Your task to perform on an android device: show emergency info Image 0: 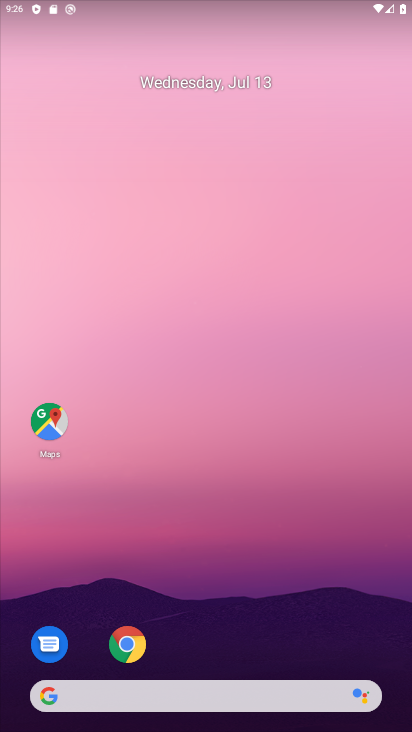
Step 0: drag from (282, 667) to (321, 202)
Your task to perform on an android device: show emergency info Image 1: 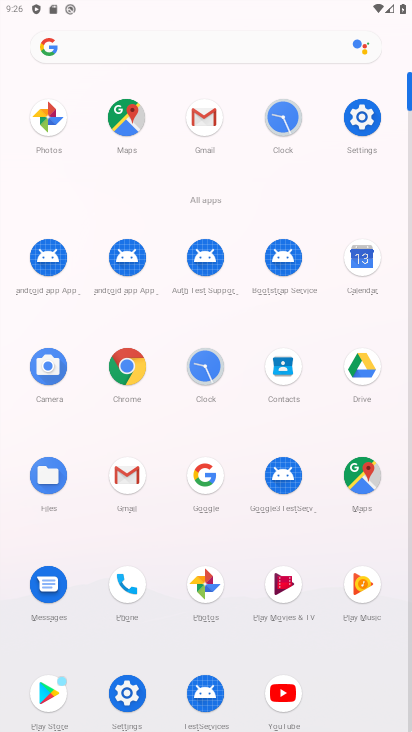
Step 1: click (129, 696)
Your task to perform on an android device: show emergency info Image 2: 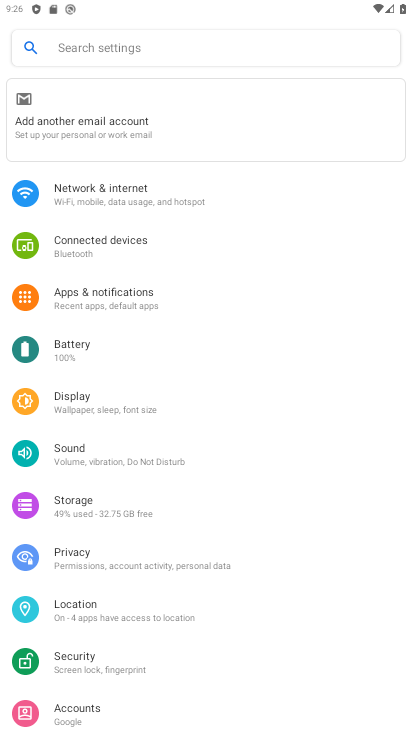
Step 2: drag from (126, 715) to (348, 139)
Your task to perform on an android device: show emergency info Image 3: 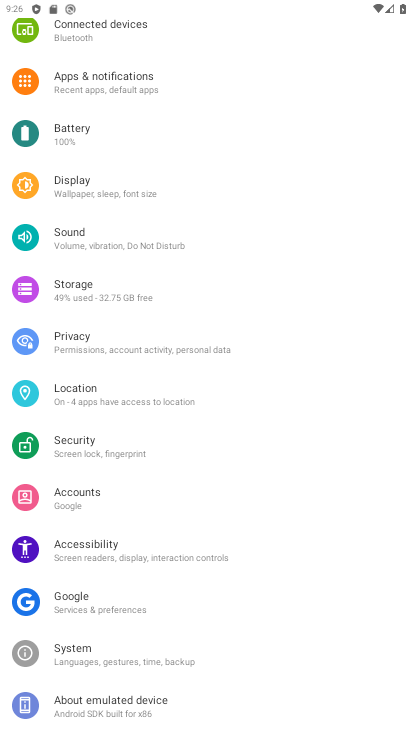
Step 3: click (170, 699)
Your task to perform on an android device: show emergency info Image 4: 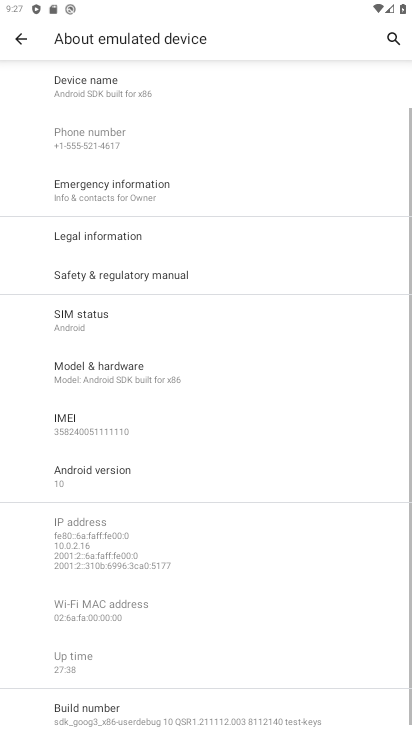
Step 4: click (191, 190)
Your task to perform on an android device: show emergency info Image 5: 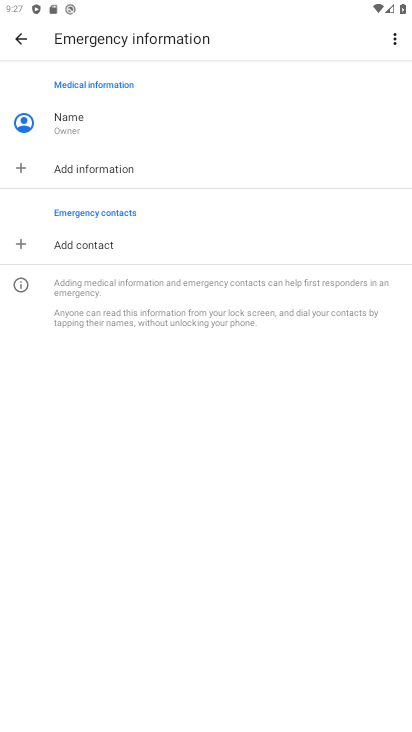
Step 5: task complete